Your task to perform on an android device: Check the settings for the Google Play Music app Image 0: 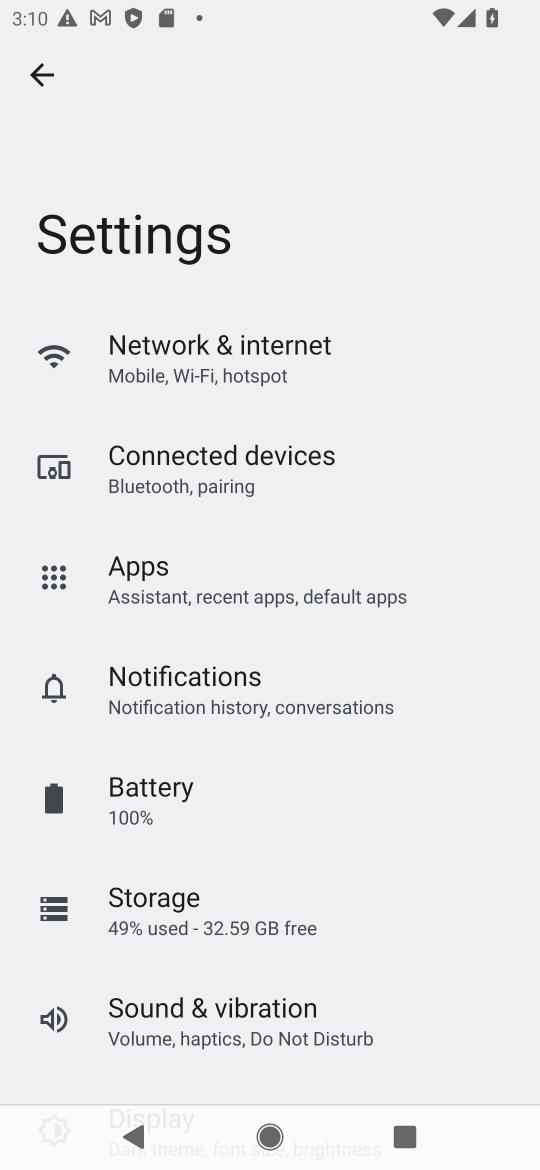
Step 0: press home button
Your task to perform on an android device: Check the settings for the Google Play Music app Image 1: 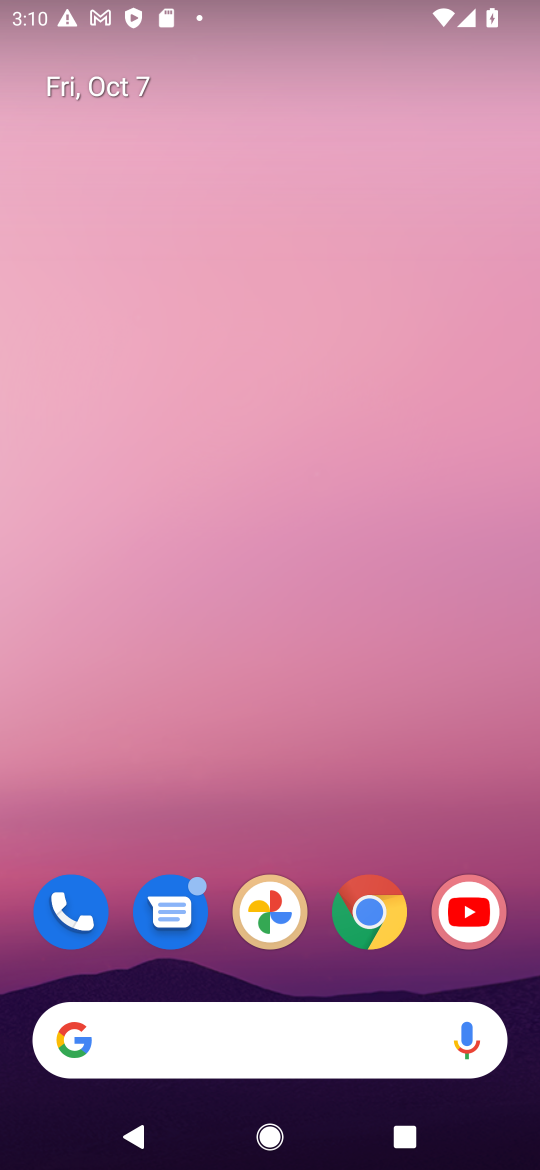
Step 1: drag from (318, 920) to (331, 287)
Your task to perform on an android device: Check the settings for the Google Play Music app Image 2: 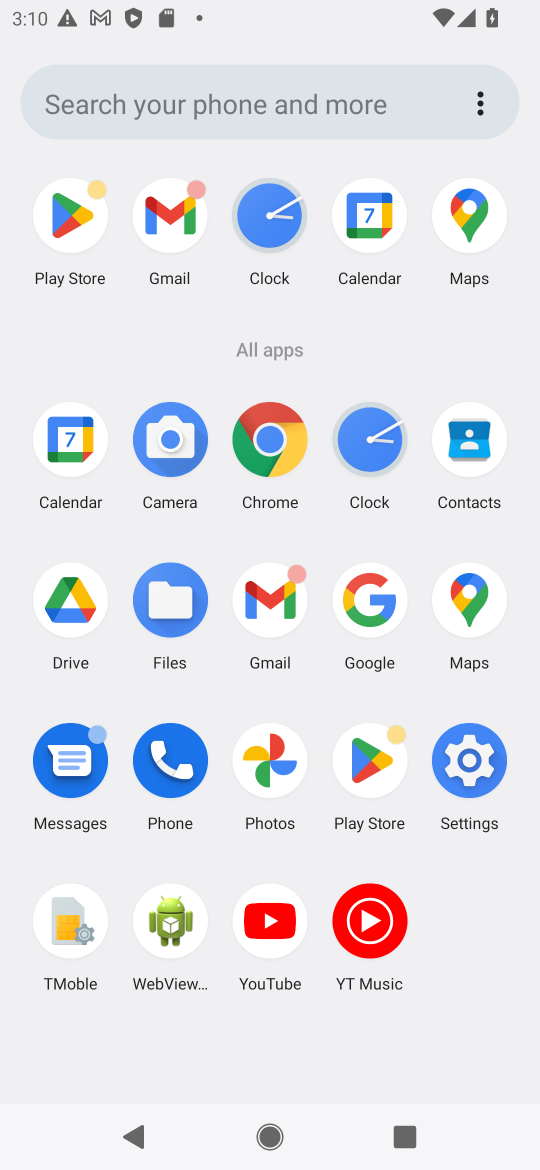
Step 2: click (373, 760)
Your task to perform on an android device: Check the settings for the Google Play Music app Image 3: 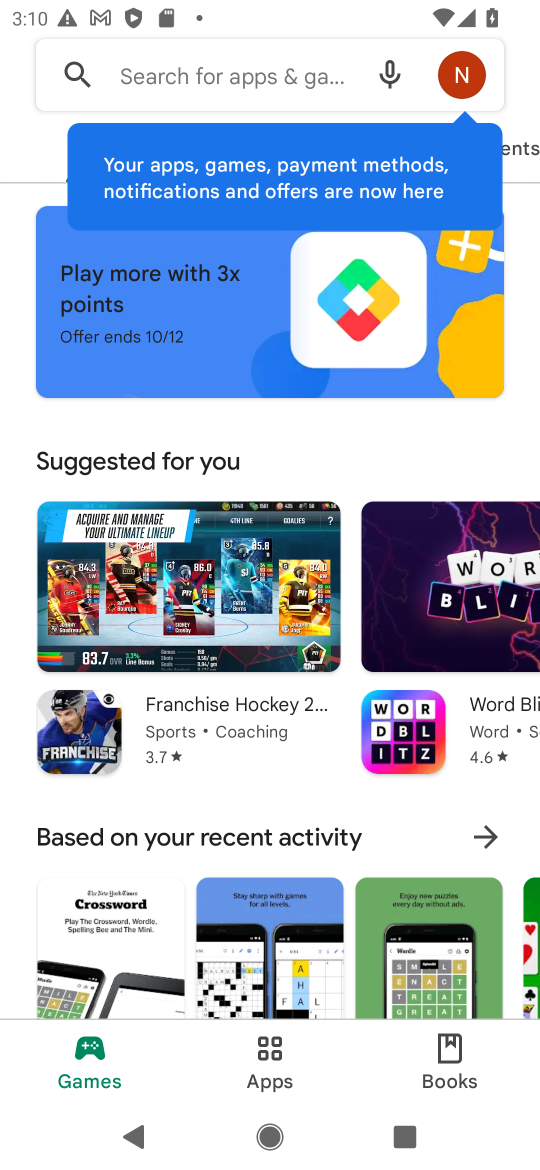
Step 3: click (259, 72)
Your task to perform on an android device: Check the settings for the Google Play Music app Image 4: 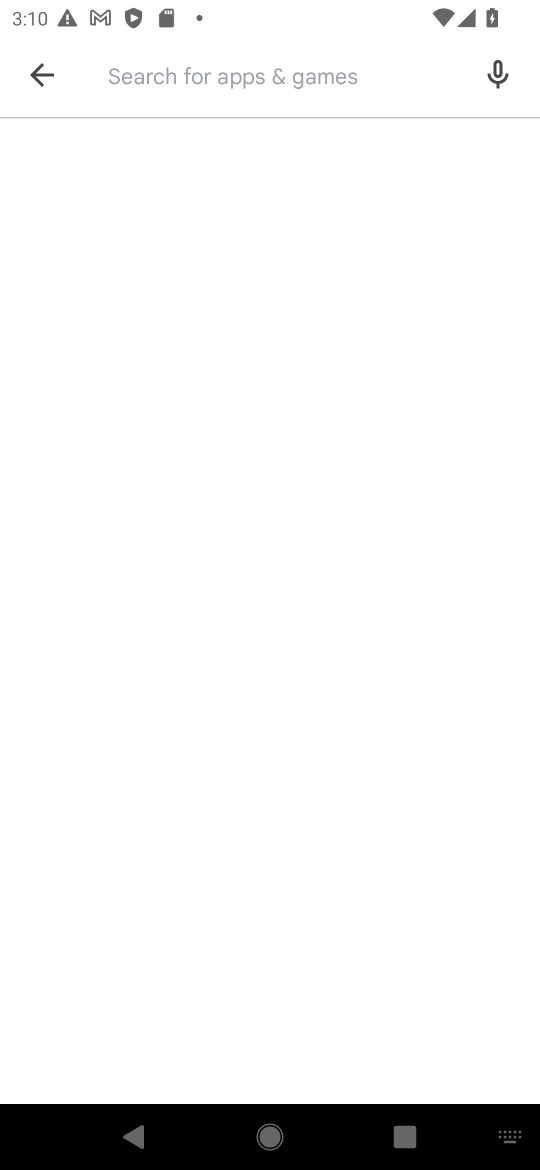
Step 4: type "Google Play Music app "
Your task to perform on an android device: Check the settings for the Google Play Music app Image 5: 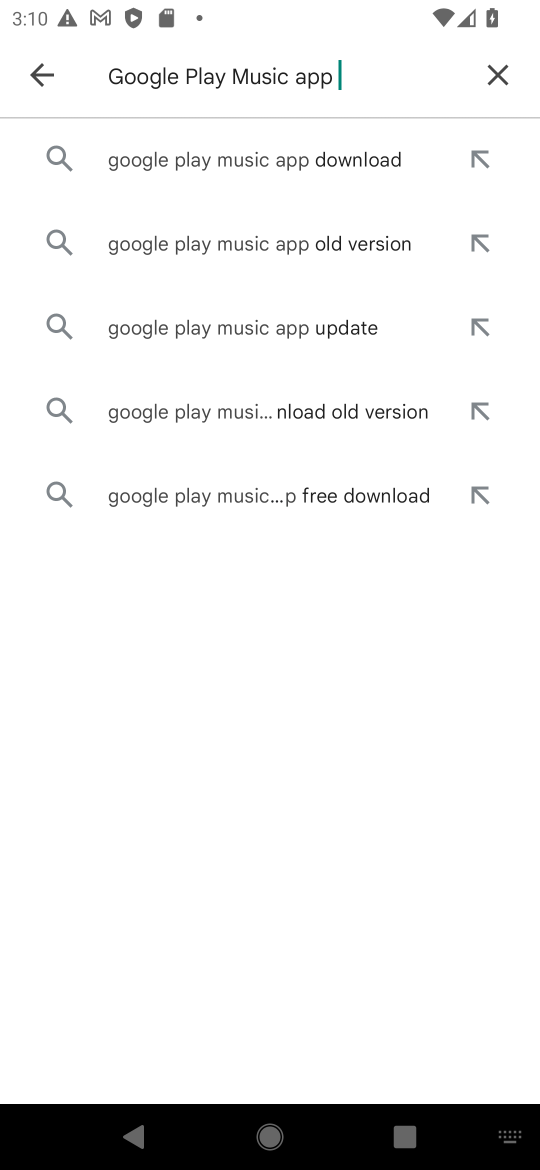
Step 5: click (148, 147)
Your task to perform on an android device: Check the settings for the Google Play Music app Image 6: 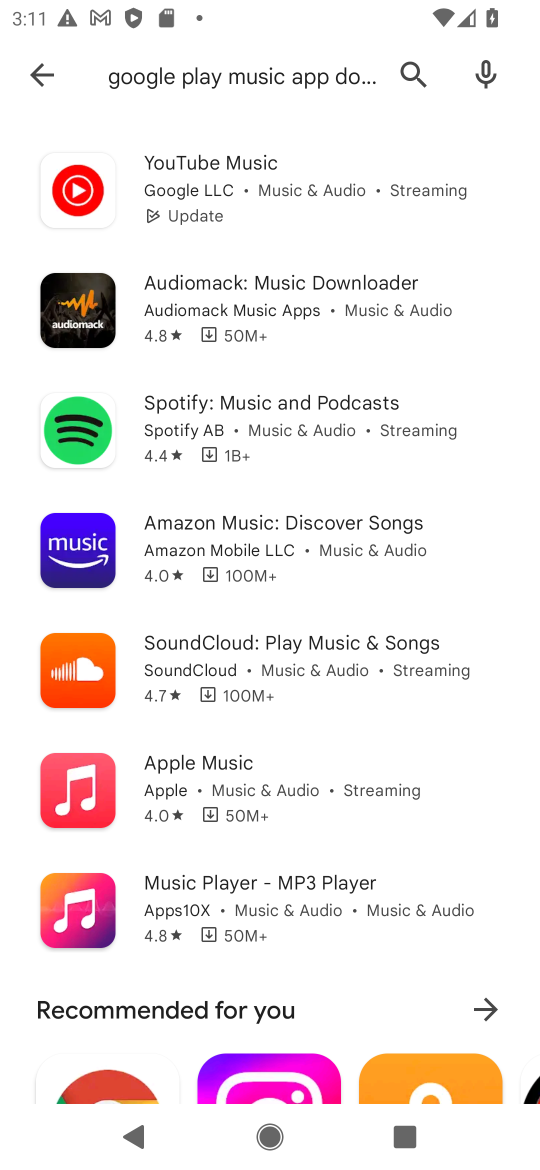
Step 6: click (230, 192)
Your task to perform on an android device: Check the settings for the Google Play Music app Image 7: 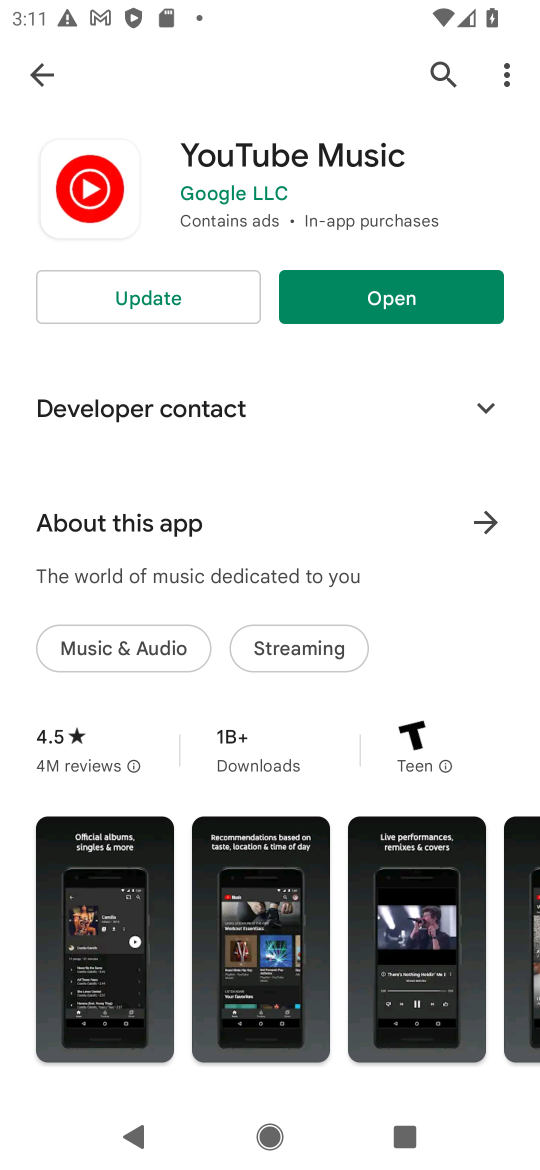
Step 7: click (44, 67)
Your task to perform on an android device: Check the settings for the Google Play Music app Image 8: 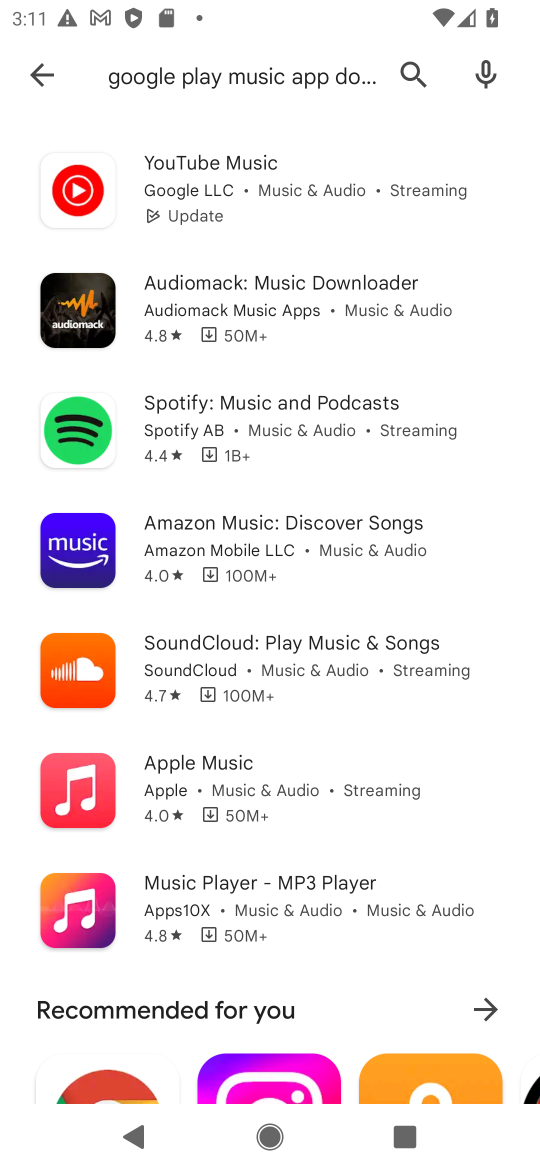
Step 8: click (270, 173)
Your task to perform on an android device: Check the settings for the Google Play Music app Image 9: 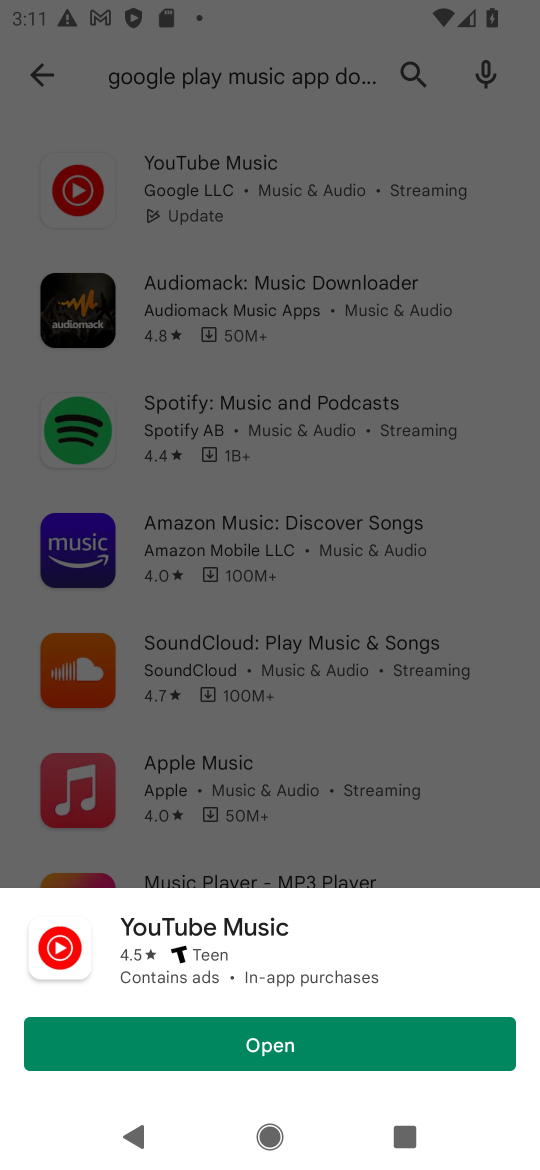
Step 9: click (243, 1046)
Your task to perform on an android device: Check the settings for the Google Play Music app Image 10: 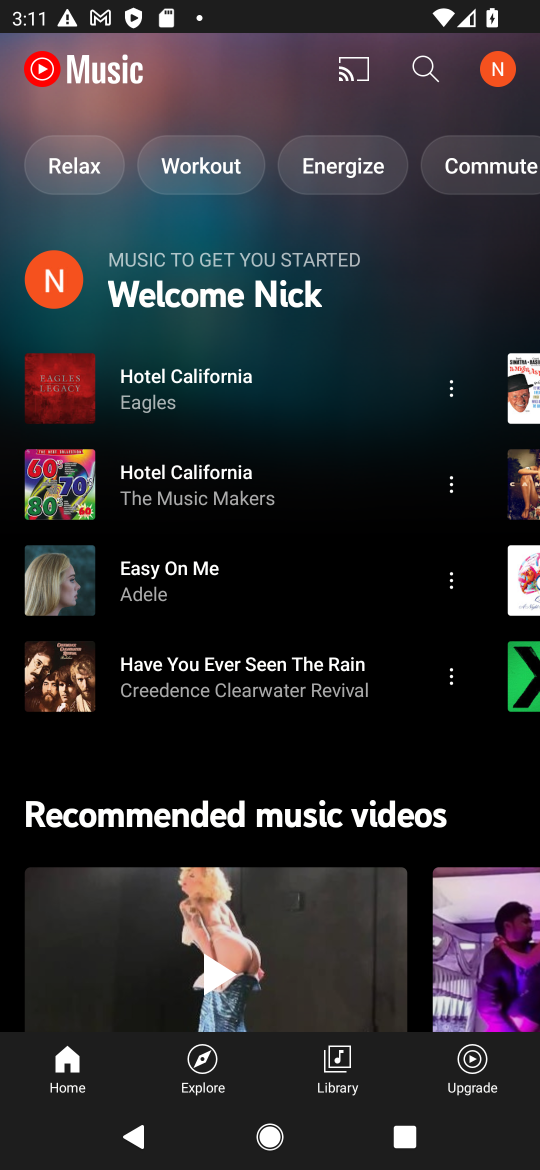
Step 10: click (473, 1073)
Your task to perform on an android device: Check the settings for the Google Play Music app Image 11: 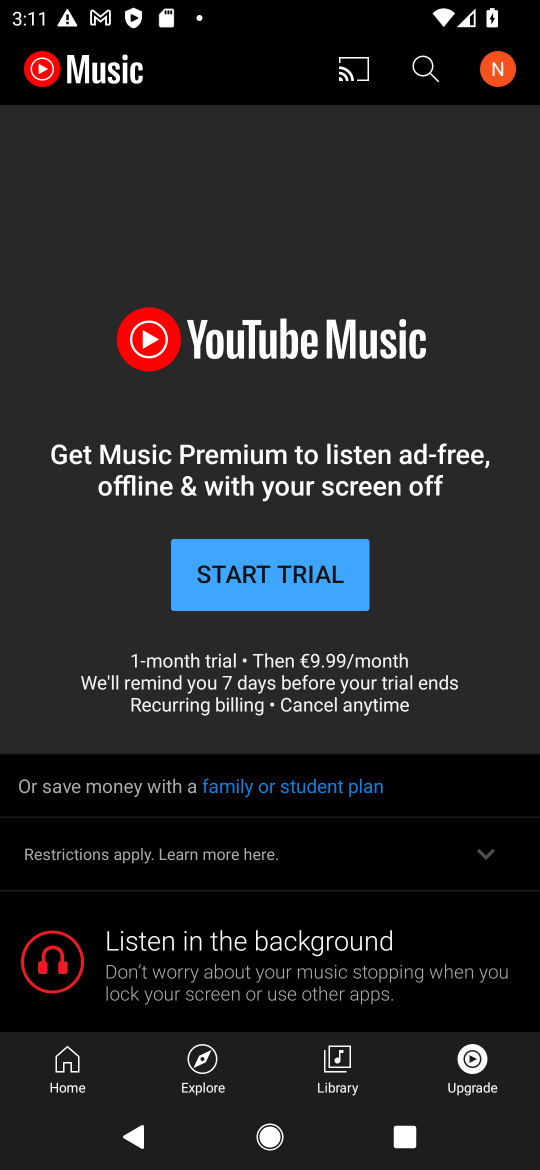
Step 11: drag from (300, 940) to (415, 295)
Your task to perform on an android device: Check the settings for the Google Play Music app Image 12: 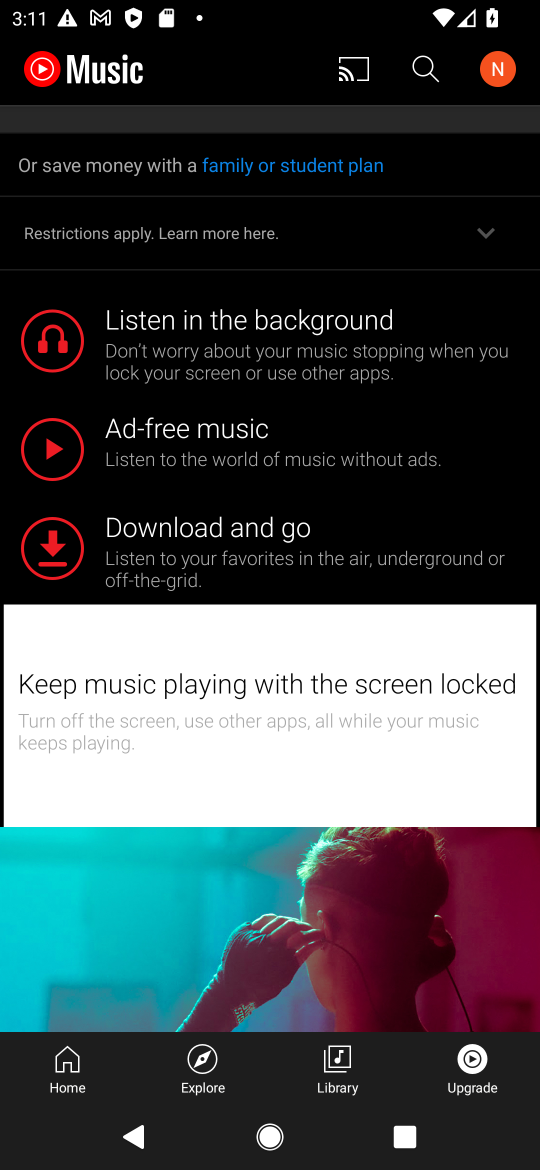
Step 12: drag from (350, 371) to (295, 1032)
Your task to perform on an android device: Check the settings for the Google Play Music app Image 13: 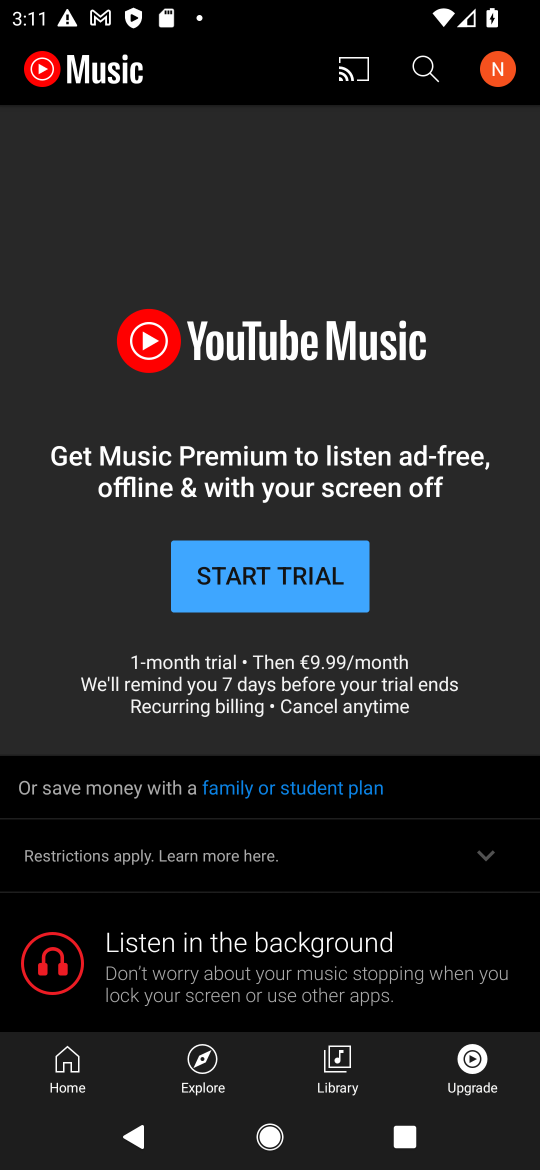
Step 13: click (498, 60)
Your task to perform on an android device: Check the settings for the Google Play Music app Image 14: 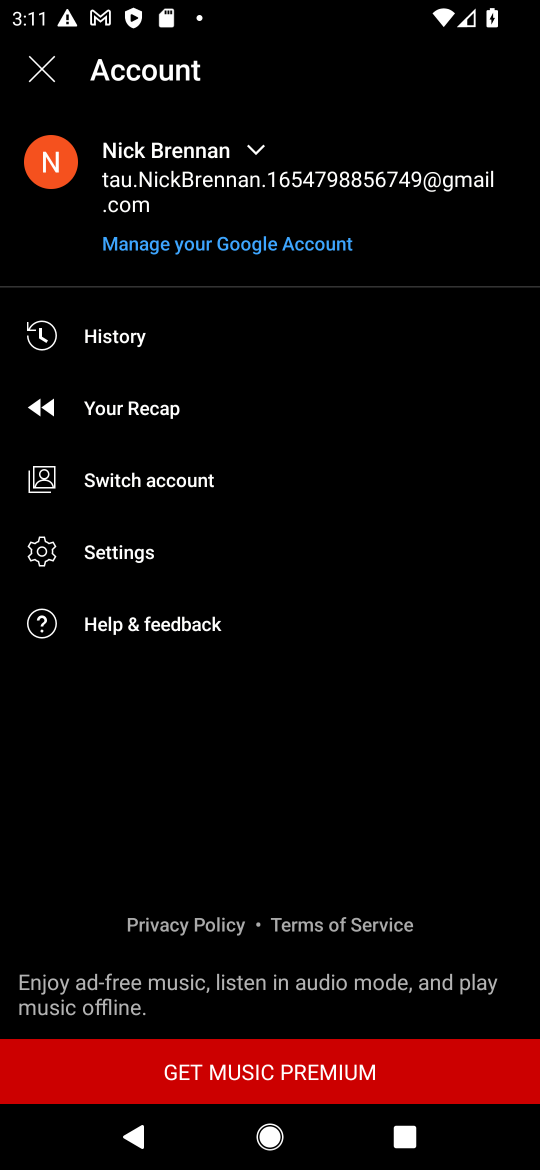
Step 14: task complete